Your task to perform on an android device: What's the weather today? Image 0: 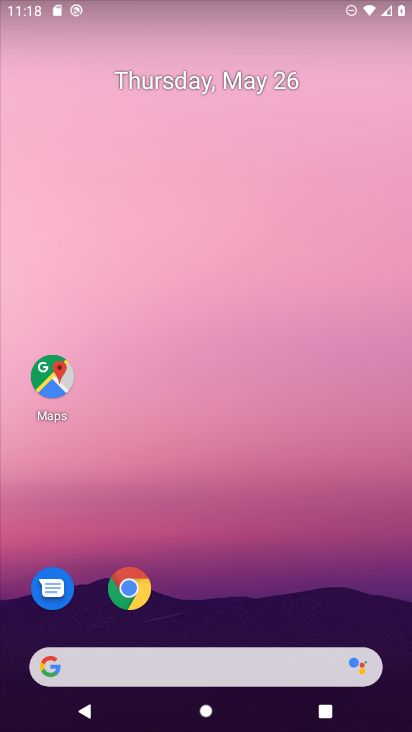
Step 0: click (237, 665)
Your task to perform on an android device: What's the weather today? Image 1: 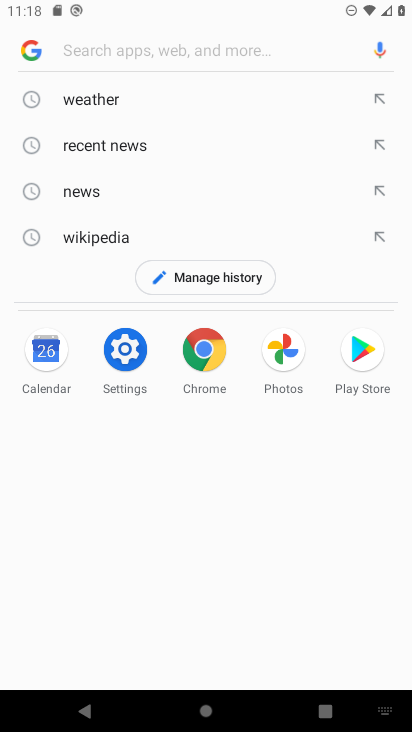
Step 1: click (97, 98)
Your task to perform on an android device: What's the weather today? Image 2: 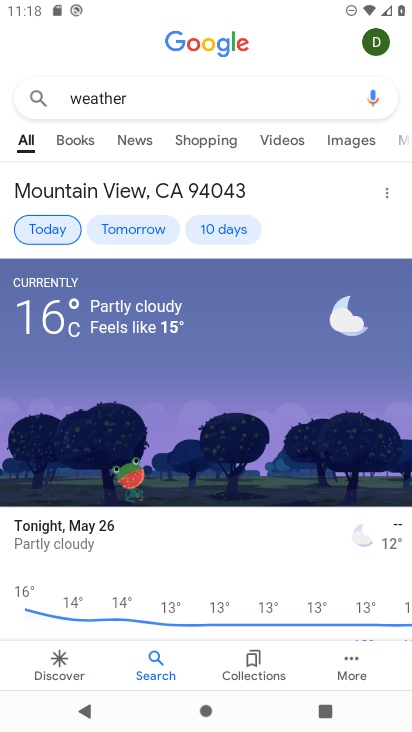
Step 2: task complete